Your task to perform on an android device: change your default location settings in chrome Image 0: 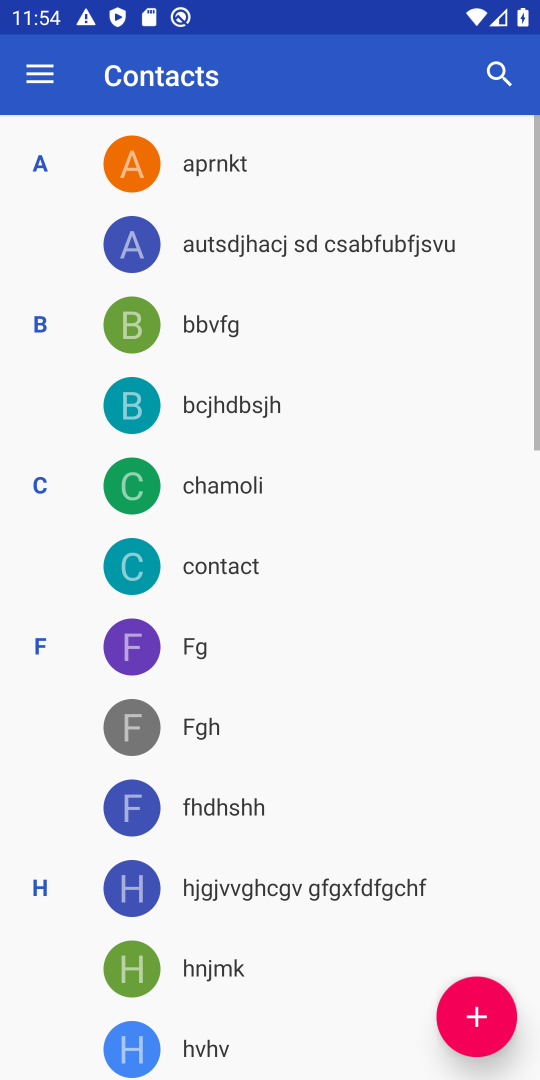
Step 0: press home button
Your task to perform on an android device: change your default location settings in chrome Image 1: 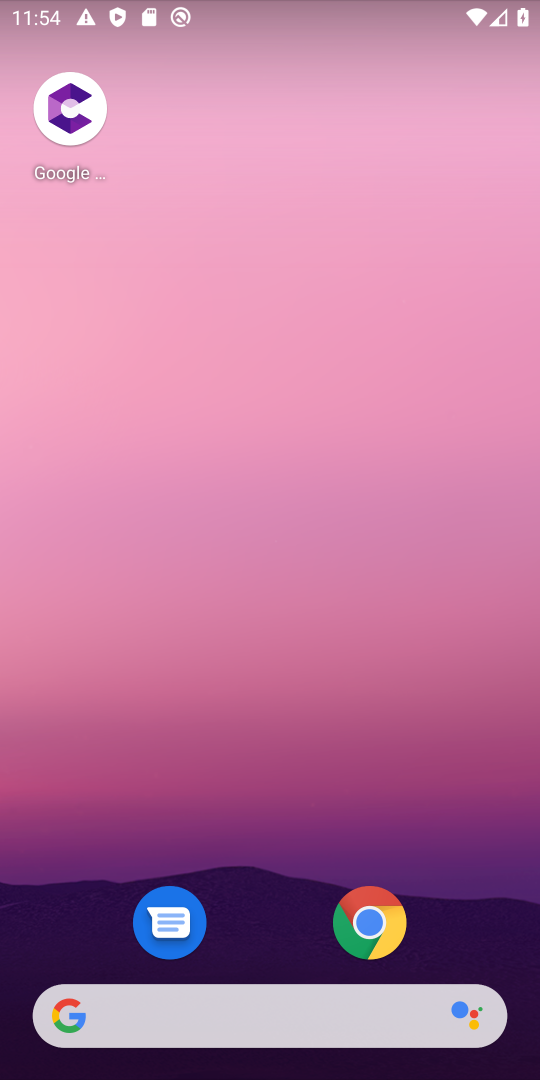
Step 1: click (376, 904)
Your task to perform on an android device: change your default location settings in chrome Image 2: 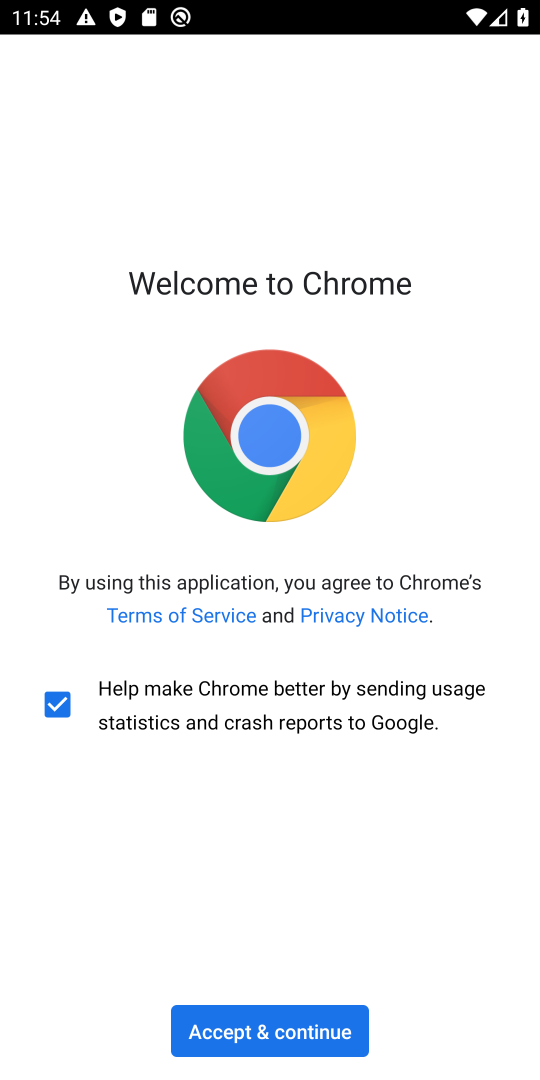
Step 2: click (243, 1029)
Your task to perform on an android device: change your default location settings in chrome Image 3: 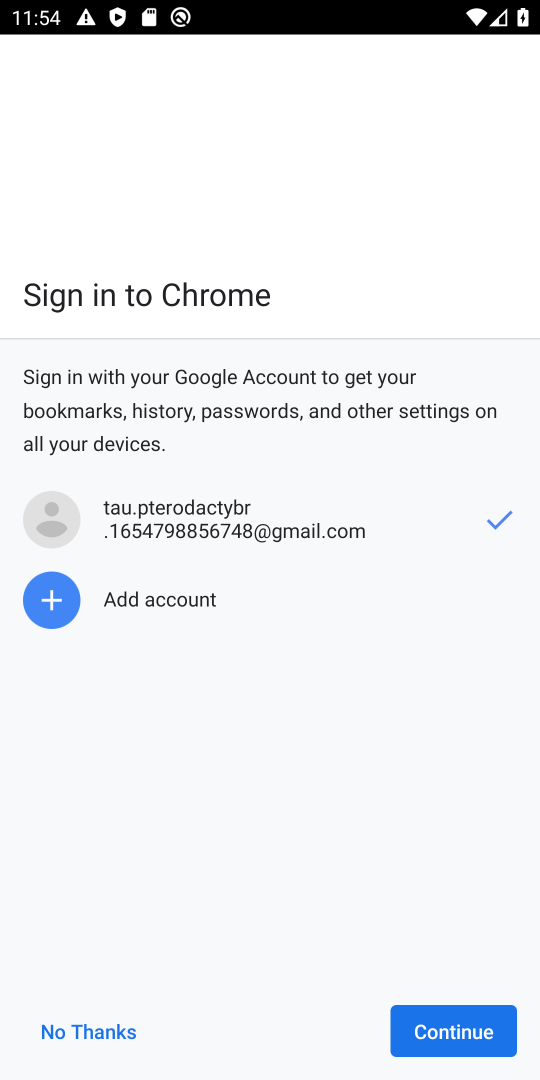
Step 3: click (473, 1039)
Your task to perform on an android device: change your default location settings in chrome Image 4: 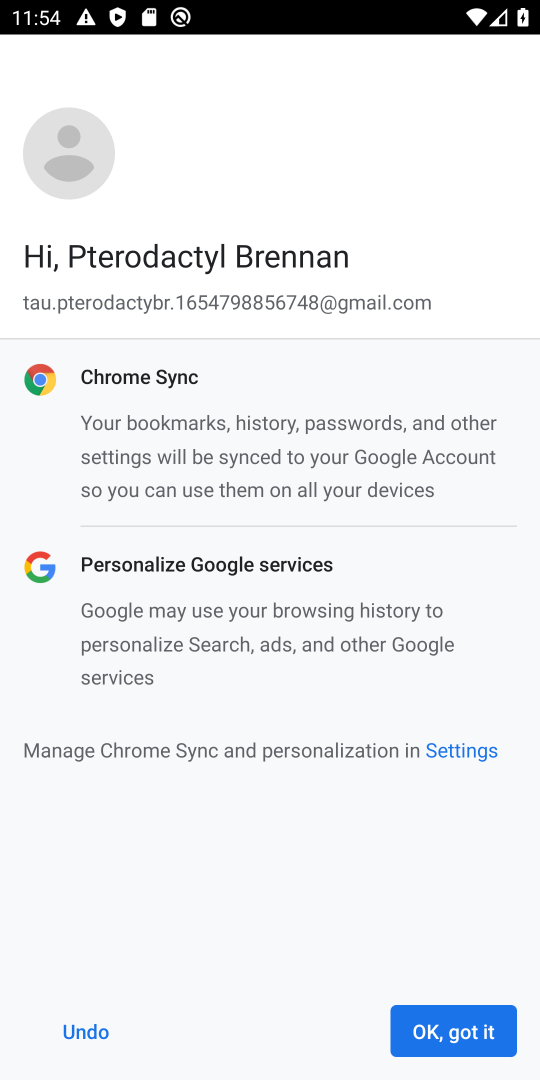
Step 4: click (473, 1039)
Your task to perform on an android device: change your default location settings in chrome Image 5: 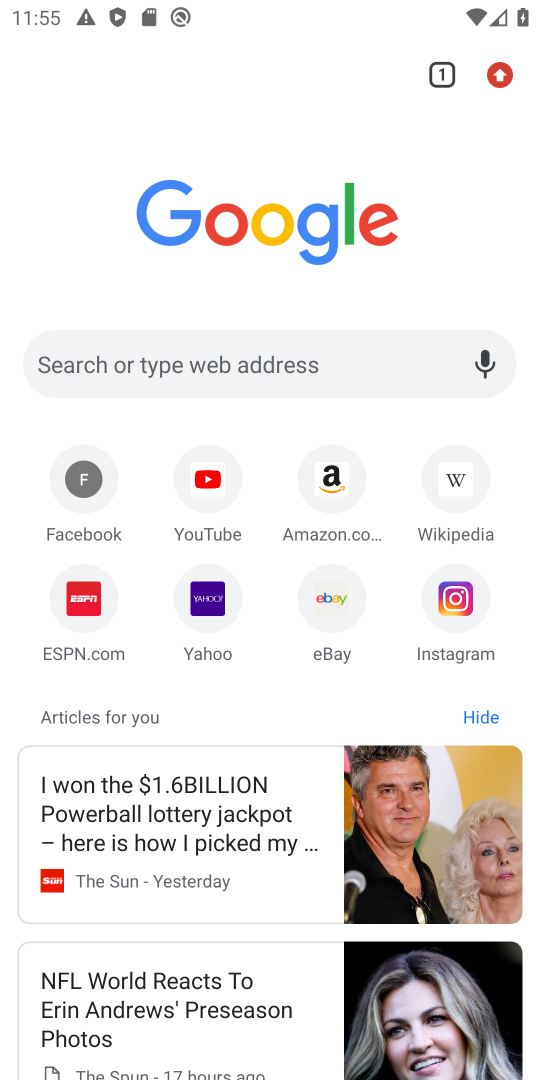
Step 5: click (501, 80)
Your task to perform on an android device: change your default location settings in chrome Image 6: 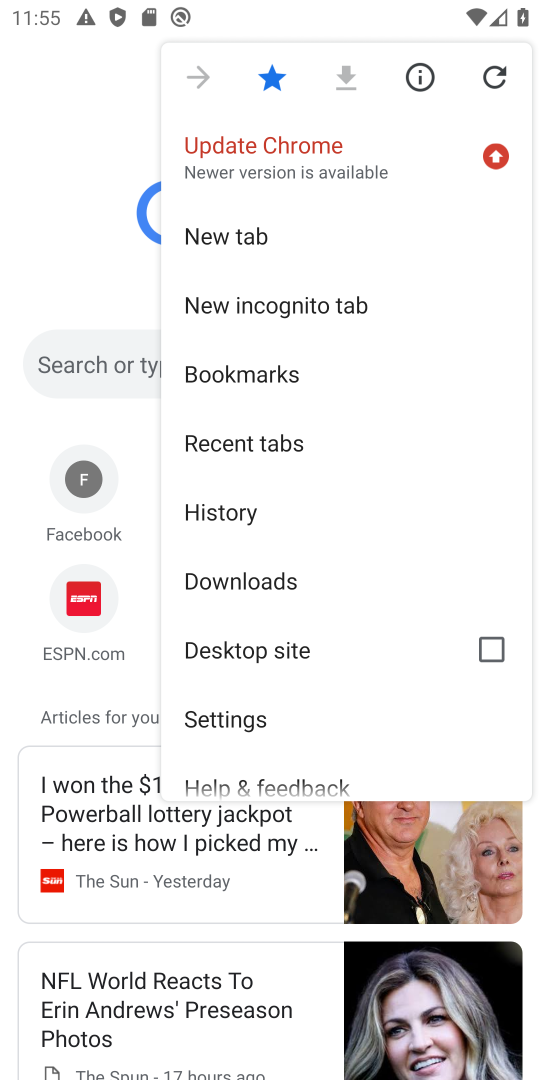
Step 6: click (305, 716)
Your task to perform on an android device: change your default location settings in chrome Image 7: 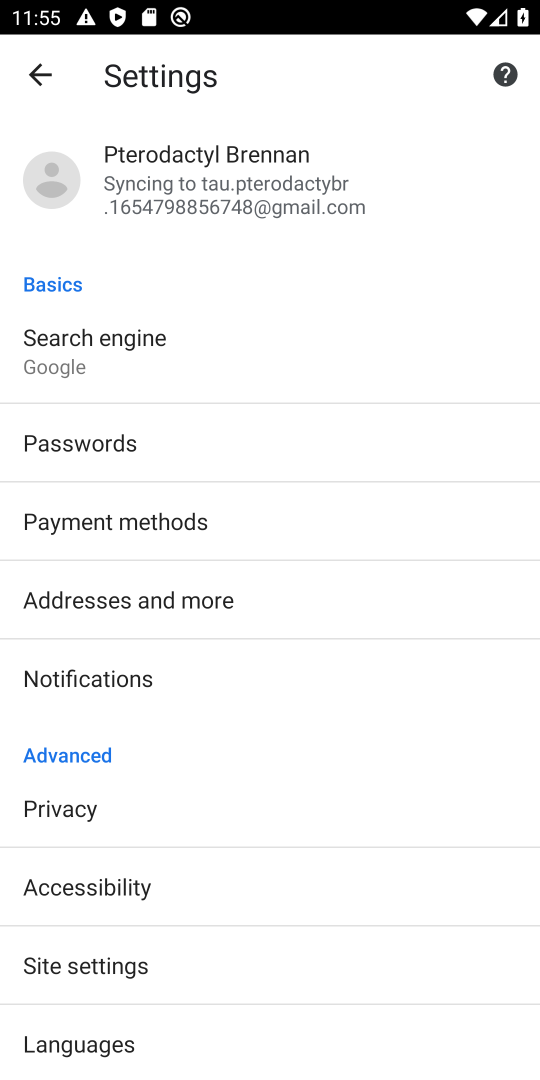
Step 7: drag from (290, 831) to (261, 487)
Your task to perform on an android device: change your default location settings in chrome Image 8: 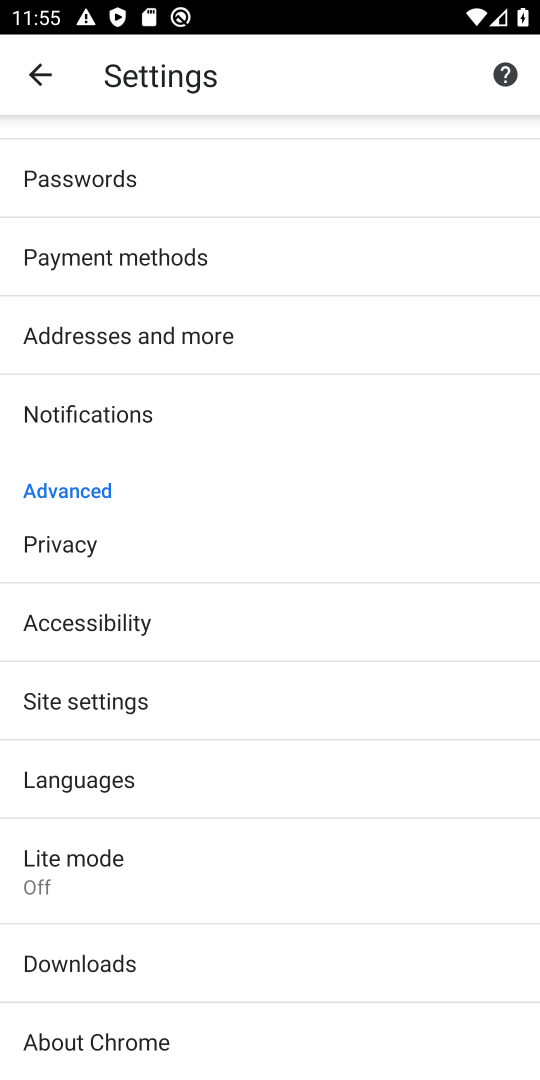
Step 8: click (69, 710)
Your task to perform on an android device: change your default location settings in chrome Image 9: 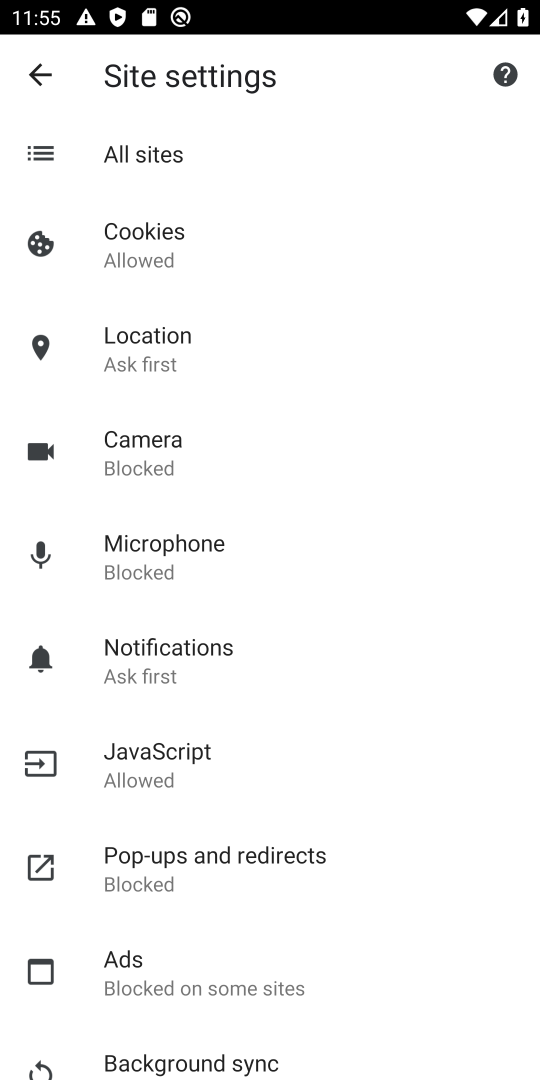
Step 9: click (167, 337)
Your task to perform on an android device: change your default location settings in chrome Image 10: 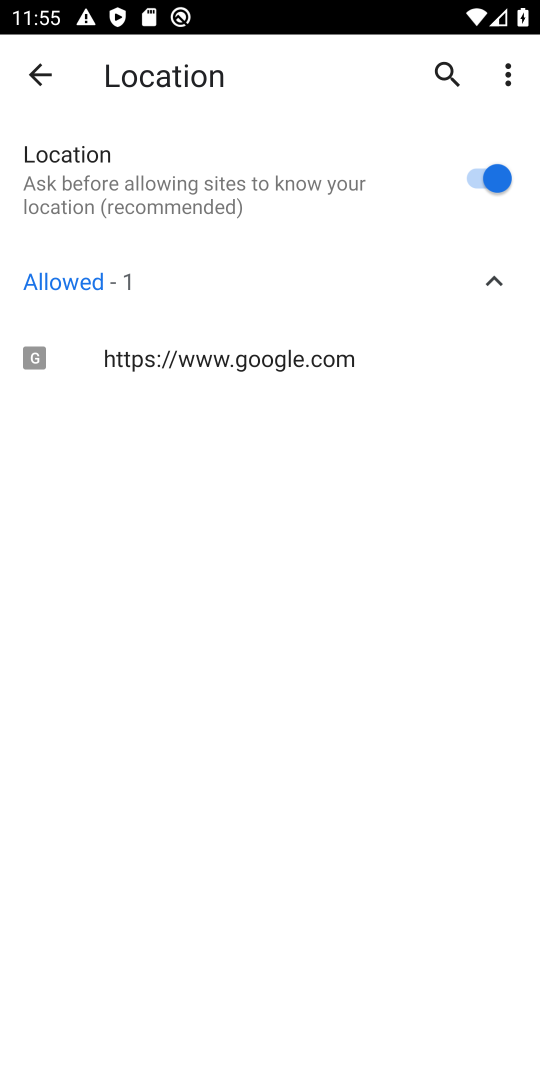
Step 10: click (488, 173)
Your task to perform on an android device: change your default location settings in chrome Image 11: 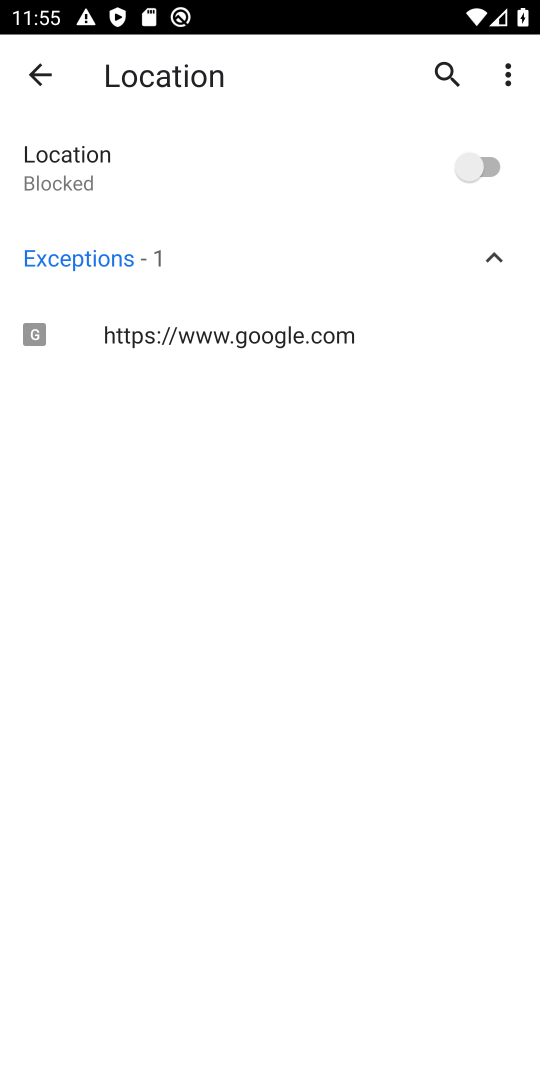
Step 11: task complete